Your task to perform on an android device: Go to location settings Image 0: 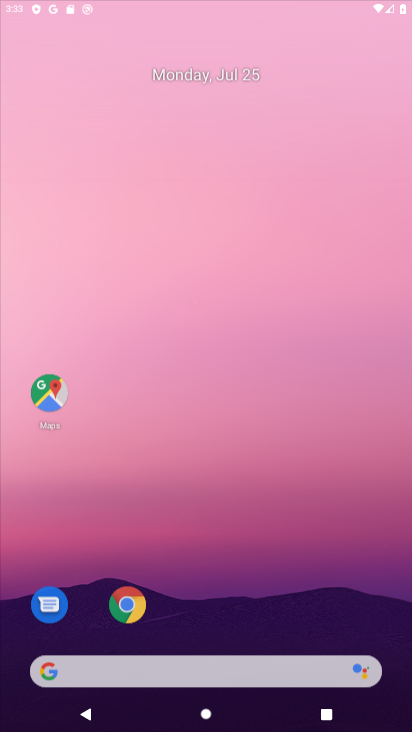
Step 0: press home button
Your task to perform on an android device: Go to location settings Image 1: 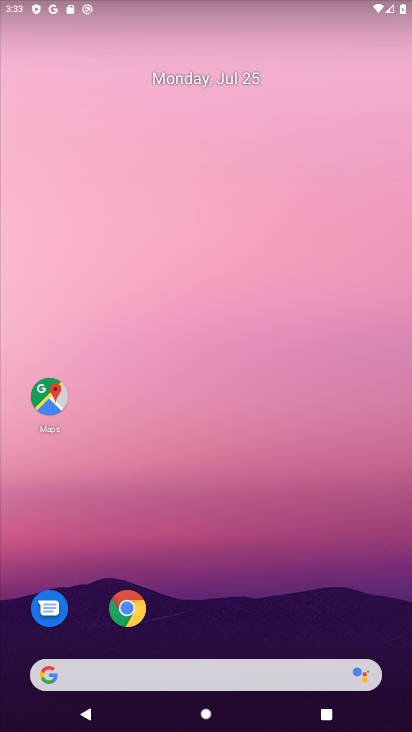
Step 1: click (211, 640)
Your task to perform on an android device: Go to location settings Image 2: 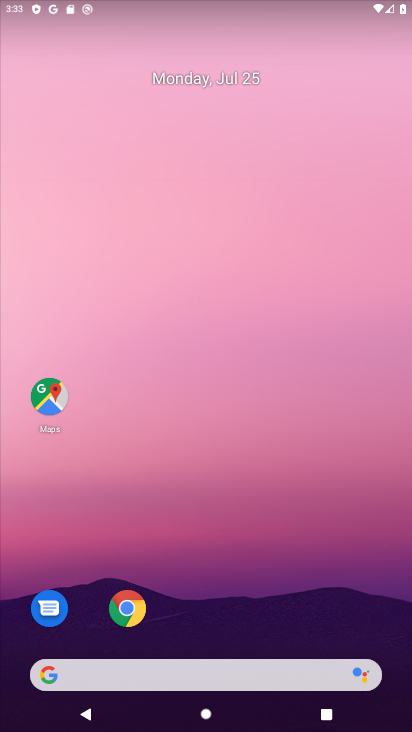
Step 2: drag from (210, 634) to (242, 60)
Your task to perform on an android device: Go to location settings Image 3: 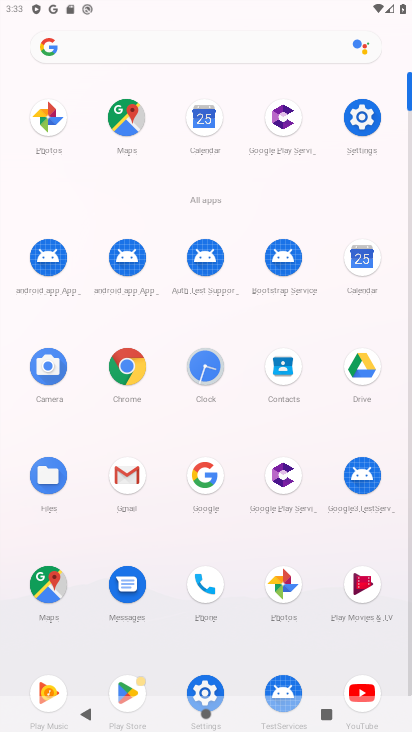
Step 3: click (358, 113)
Your task to perform on an android device: Go to location settings Image 4: 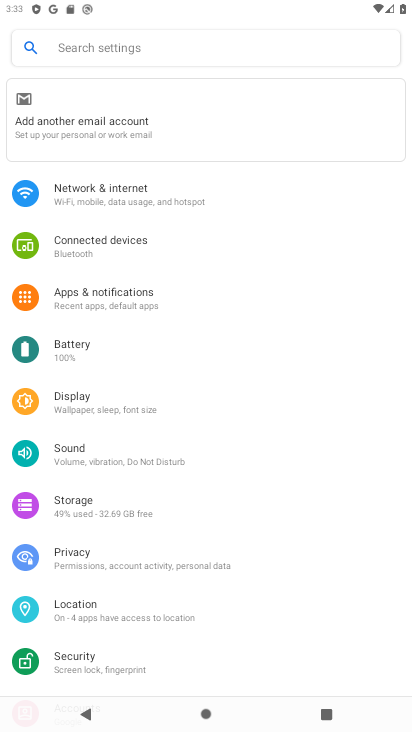
Step 4: click (107, 606)
Your task to perform on an android device: Go to location settings Image 5: 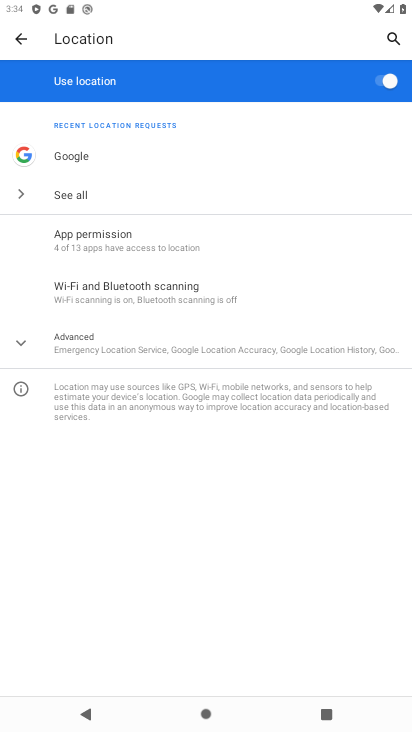
Step 5: click (21, 336)
Your task to perform on an android device: Go to location settings Image 6: 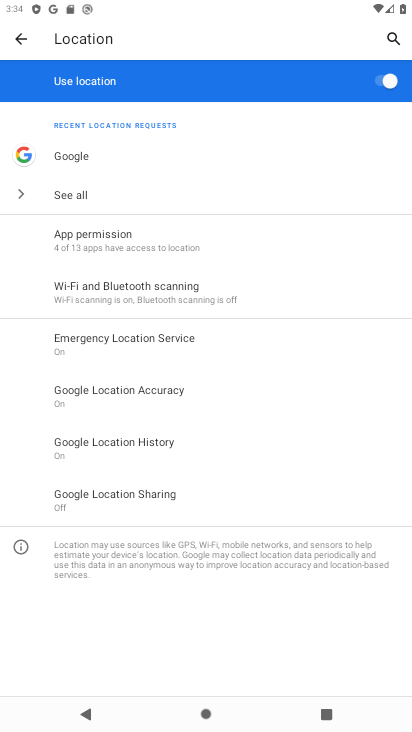
Step 6: task complete